Your task to perform on an android device: turn off notifications in google photos Image 0: 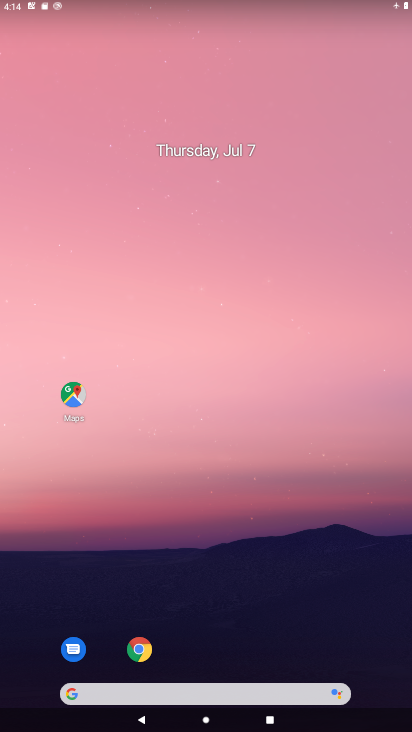
Step 0: drag from (354, 639) to (333, 138)
Your task to perform on an android device: turn off notifications in google photos Image 1: 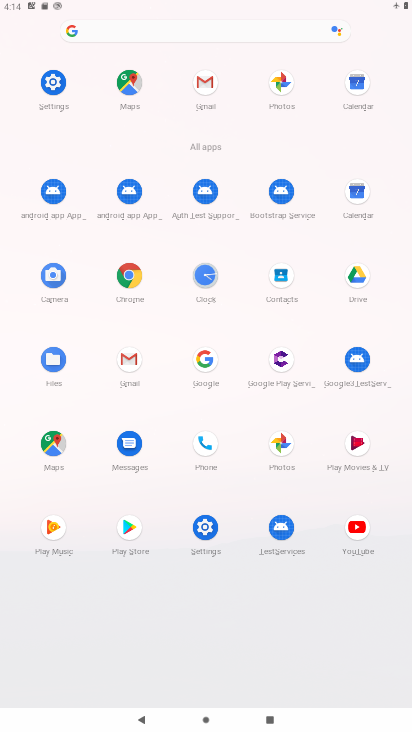
Step 1: click (280, 443)
Your task to perform on an android device: turn off notifications in google photos Image 2: 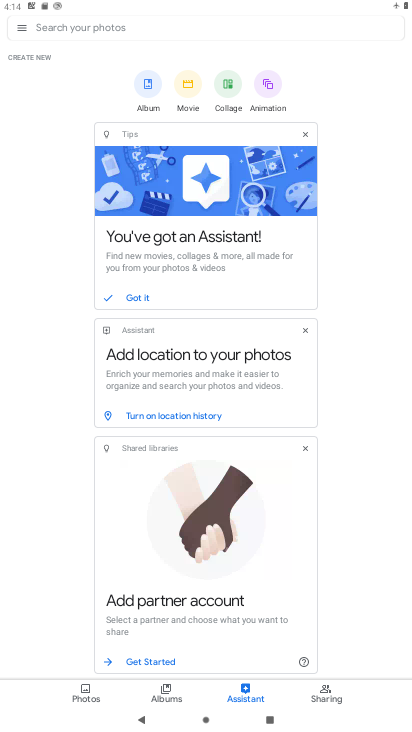
Step 2: click (80, 698)
Your task to perform on an android device: turn off notifications in google photos Image 3: 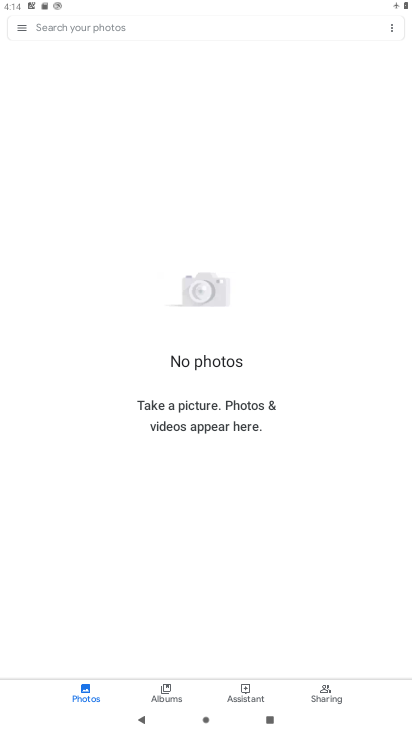
Step 3: click (17, 25)
Your task to perform on an android device: turn off notifications in google photos Image 4: 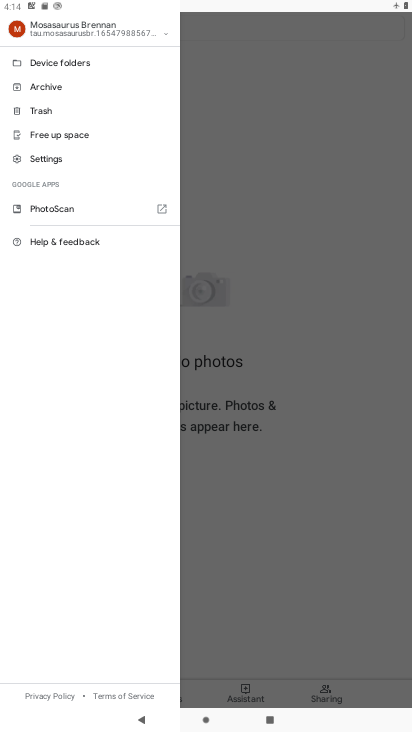
Step 4: click (45, 157)
Your task to perform on an android device: turn off notifications in google photos Image 5: 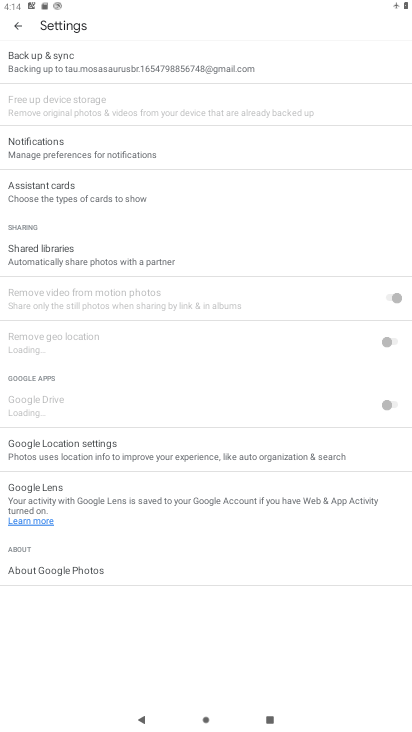
Step 5: click (68, 144)
Your task to perform on an android device: turn off notifications in google photos Image 6: 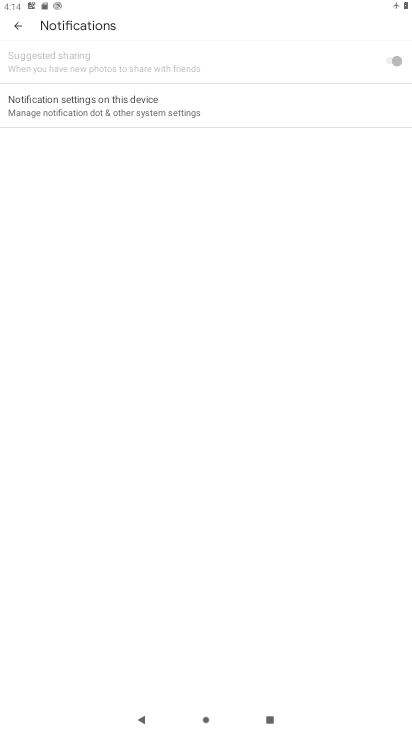
Step 6: click (83, 98)
Your task to perform on an android device: turn off notifications in google photos Image 7: 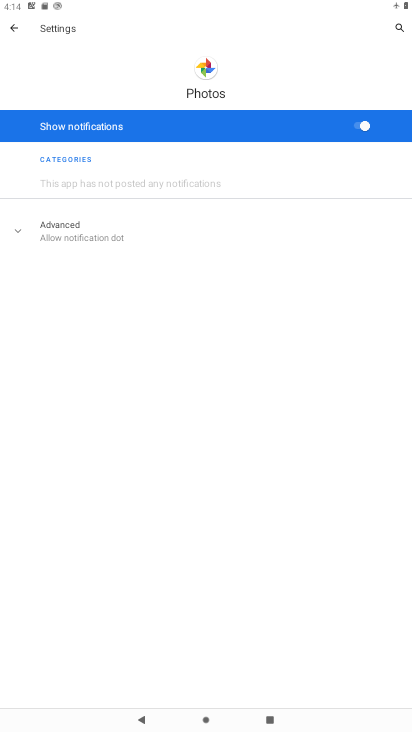
Step 7: click (358, 127)
Your task to perform on an android device: turn off notifications in google photos Image 8: 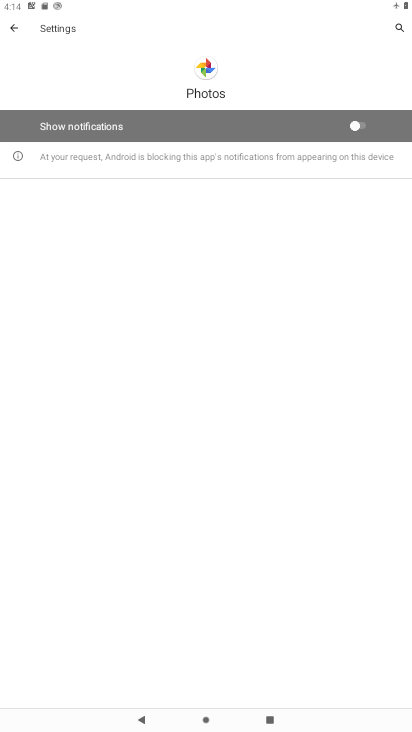
Step 8: task complete